Your task to perform on an android device: Go to Wikipedia Image 0: 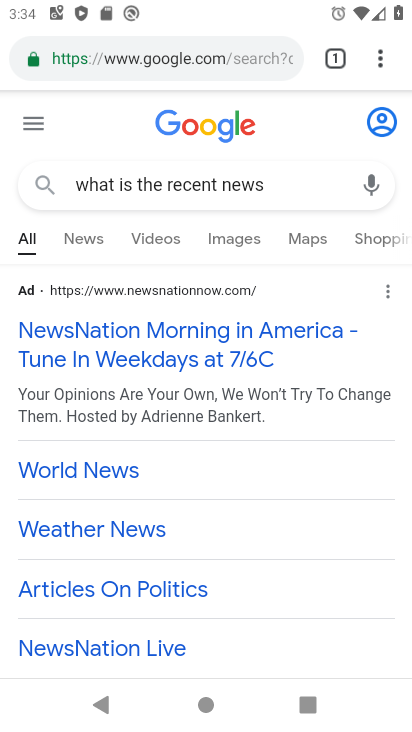
Step 0: press home button
Your task to perform on an android device: Go to Wikipedia Image 1: 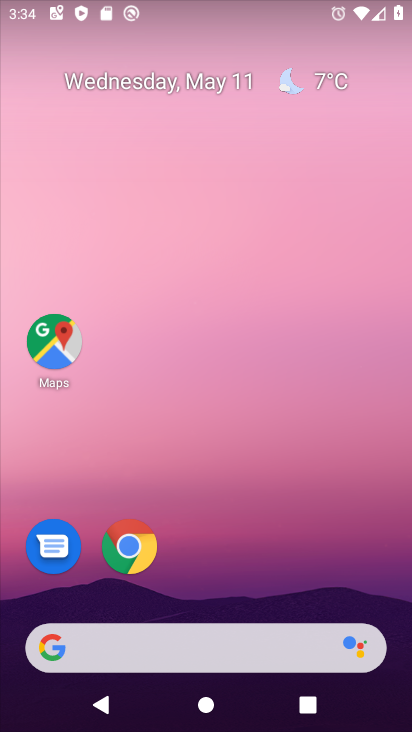
Step 1: drag from (289, 619) to (257, 15)
Your task to perform on an android device: Go to Wikipedia Image 2: 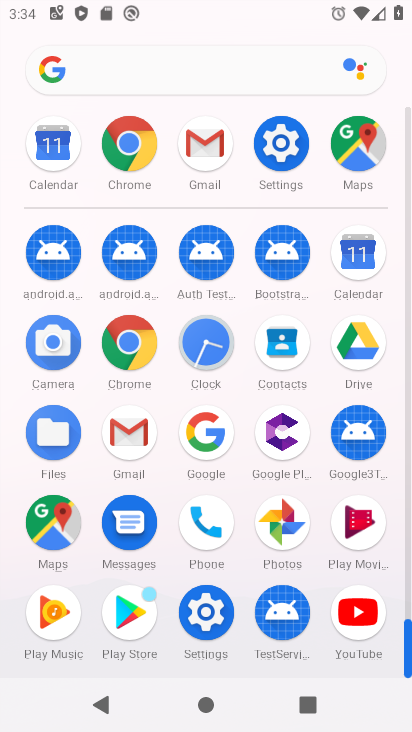
Step 2: click (138, 340)
Your task to perform on an android device: Go to Wikipedia Image 3: 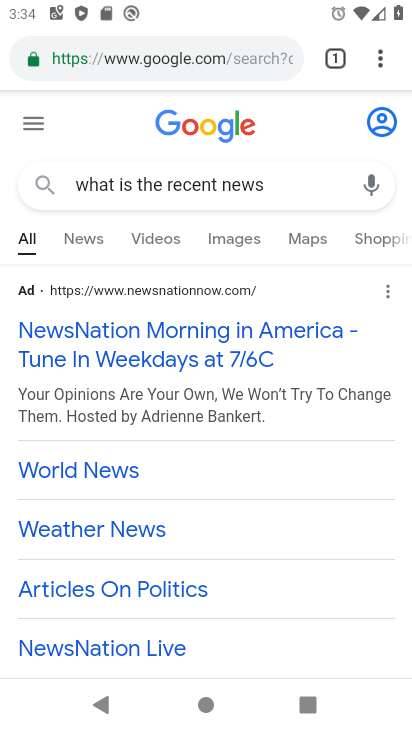
Step 3: click (215, 66)
Your task to perform on an android device: Go to Wikipedia Image 4: 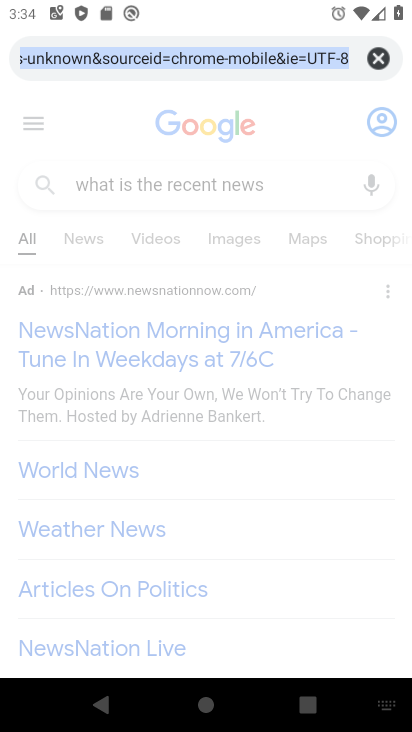
Step 4: click (372, 60)
Your task to perform on an android device: Go to Wikipedia Image 5: 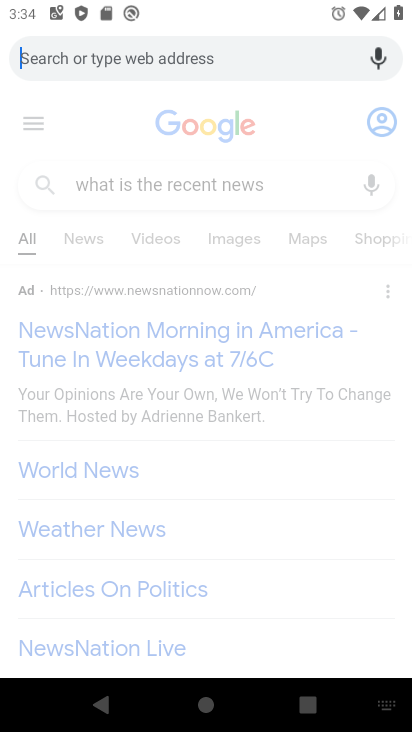
Step 5: type "wikipedia"
Your task to perform on an android device: Go to Wikipedia Image 6: 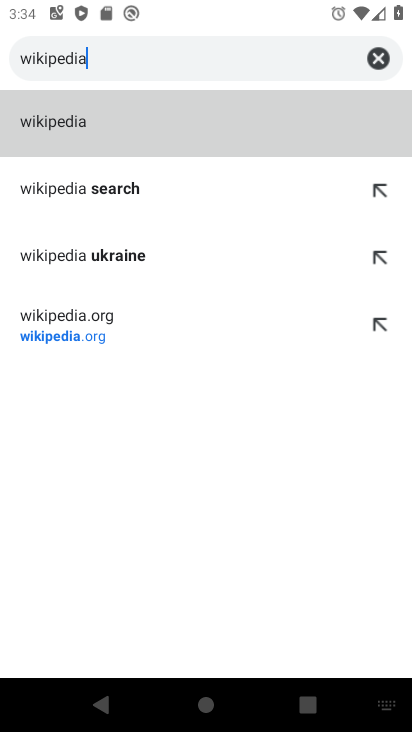
Step 6: click (53, 103)
Your task to perform on an android device: Go to Wikipedia Image 7: 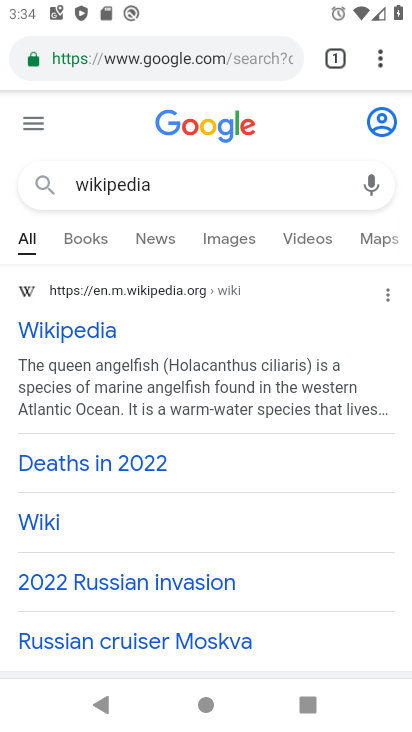
Step 7: task complete